Your task to perform on an android device: turn on showing notifications on the lock screen Image 0: 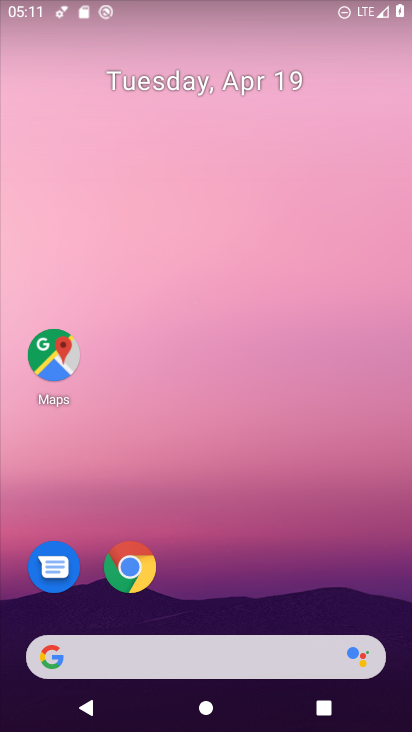
Step 0: drag from (295, 558) to (323, 124)
Your task to perform on an android device: turn on showing notifications on the lock screen Image 1: 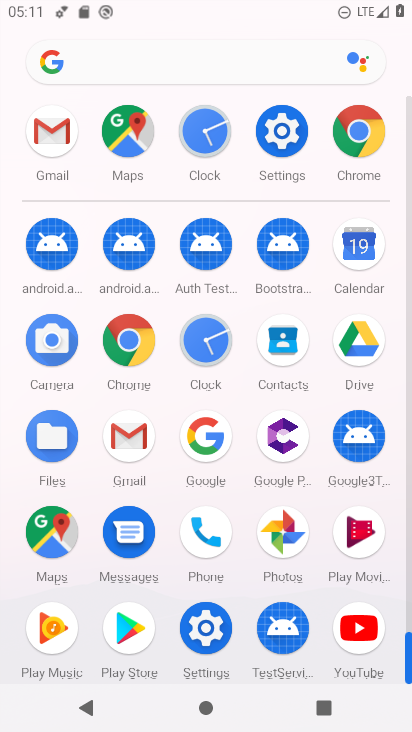
Step 1: click (201, 624)
Your task to perform on an android device: turn on showing notifications on the lock screen Image 2: 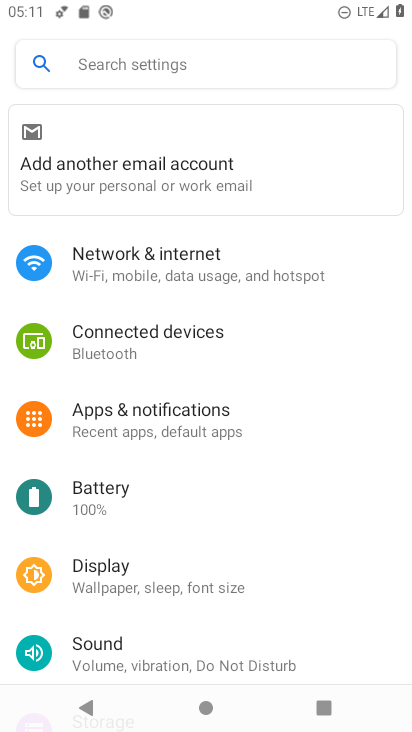
Step 2: drag from (235, 579) to (265, 171)
Your task to perform on an android device: turn on showing notifications on the lock screen Image 3: 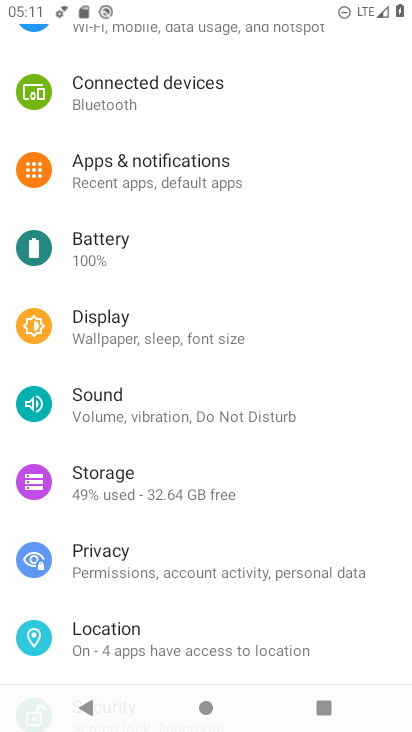
Step 3: click (223, 177)
Your task to perform on an android device: turn on showing notifications on the lock screen Image 4: 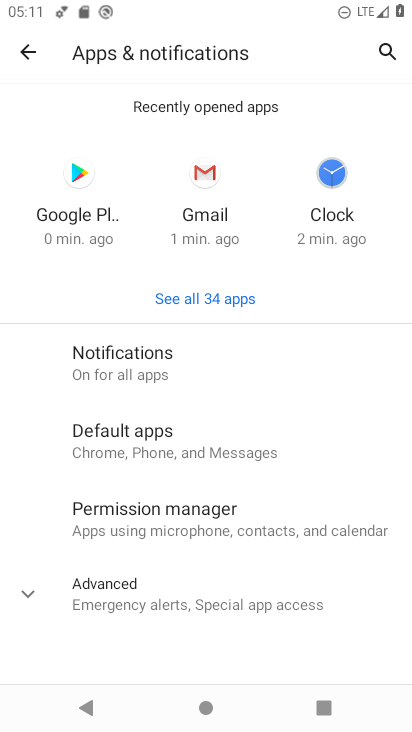
Step 4: click (198, 363)
Your task to perform on an android device: turn on showing notifications on the lock screen Image 5: 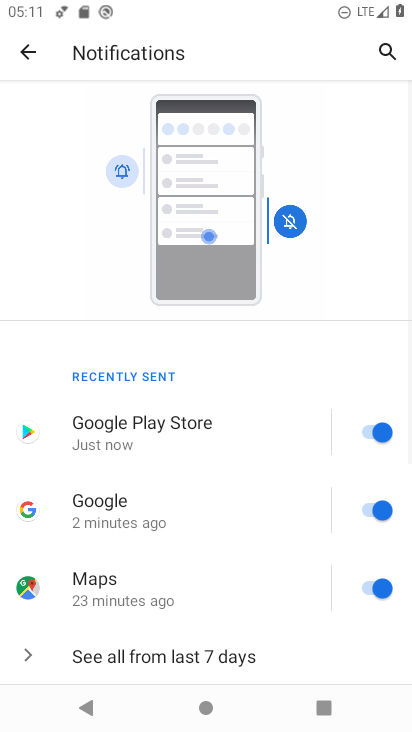
Step 5: drag from (268, 620) to (239, 196)
Your task to perform on an android device: turn on showing notifications on the lock screen Image 6: 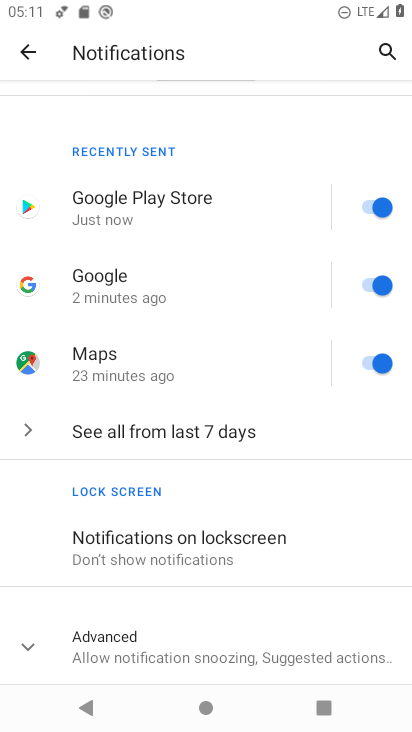
Step 6: click (259, 563)
Your task to perform on an android device: turn on showing notifications on the lock screen Image 7: 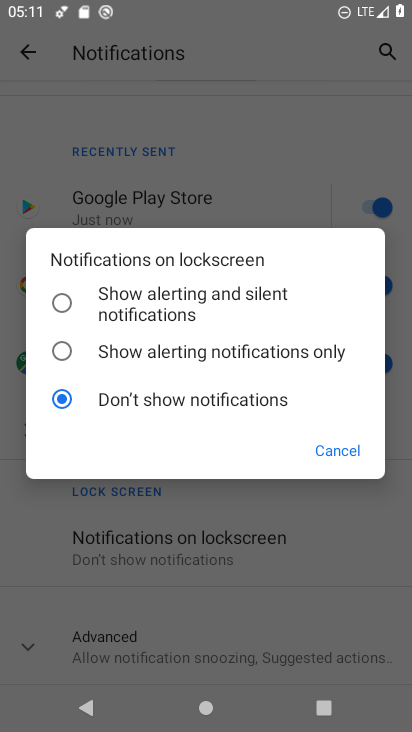
Step 7: click (55, 299)
Your task to perform on an android device: turn on showing notifications on the lock screen Image 8: 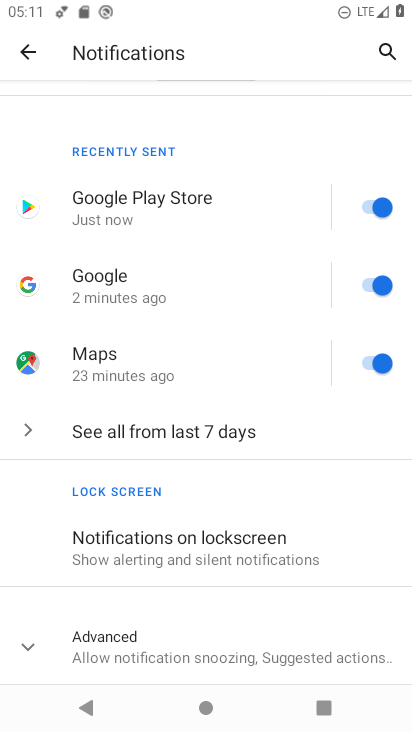
Step 8: task complete